Your task to perform on an android device: turn off javascript in the chrome app Image 0: 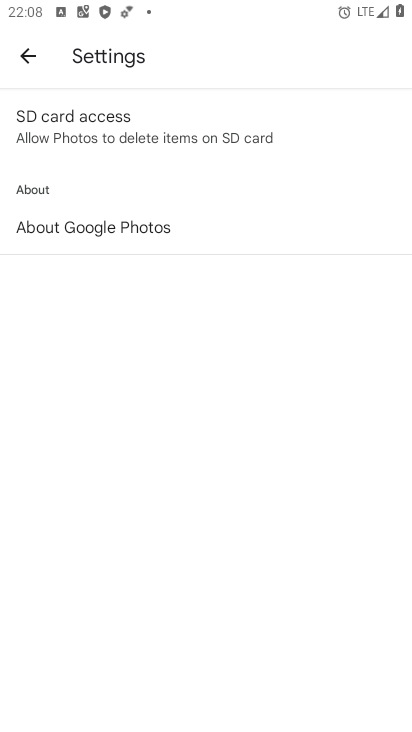
Step 0: press home button
Your task to perform on an android device: turn off javascript in the chrome app Image 1: 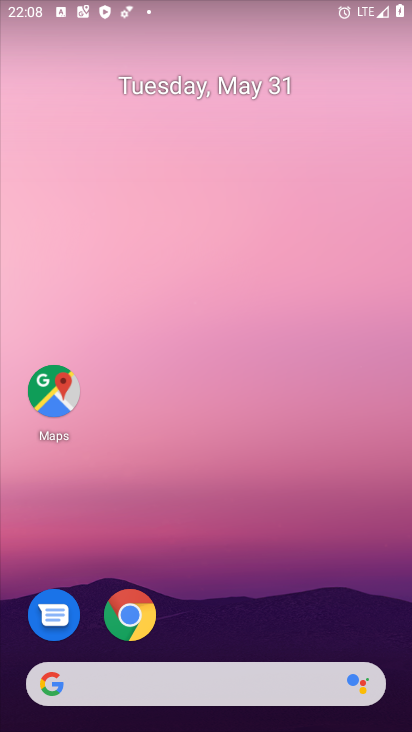
Step 1: click (132, 611)
Your task to perform on an android device: turn off javascript in the chrome app Image 2: 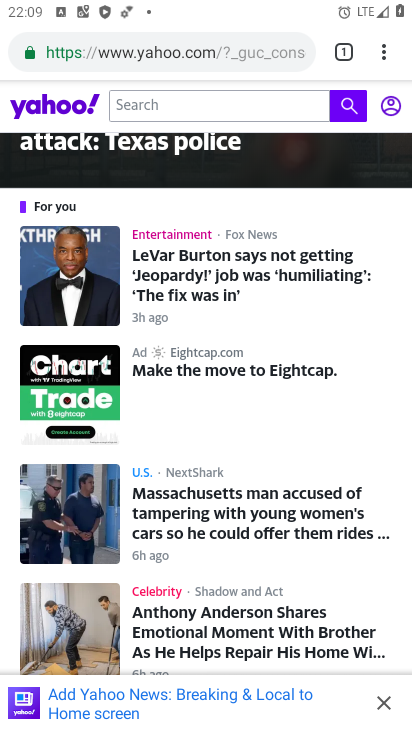
Step 2: click (383, 58)
Your task to perform on an android device: turn off javascript in the chrome app Image 3: 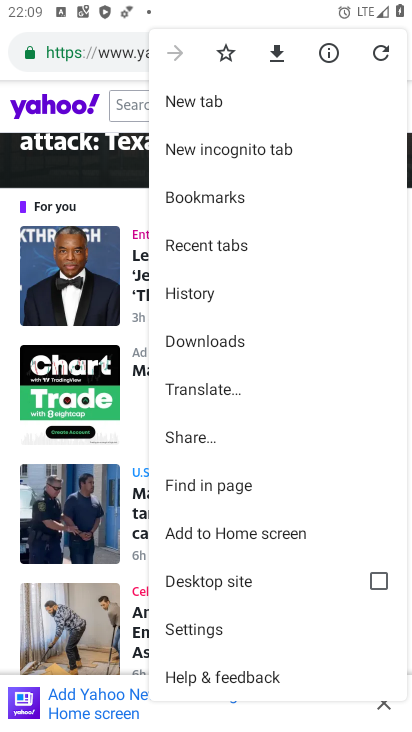
Step 3: click (196, 626)
Your task to perform on an android device: turn off javascript in the chrome app Image 4: 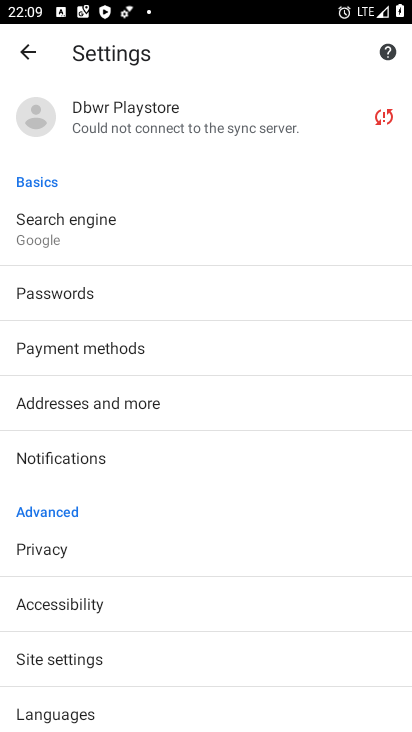
Step 4: drag from (197, 675) to (233, 364)
Your task to perform on an android device: turn off javascript in the chrome app Image 5: 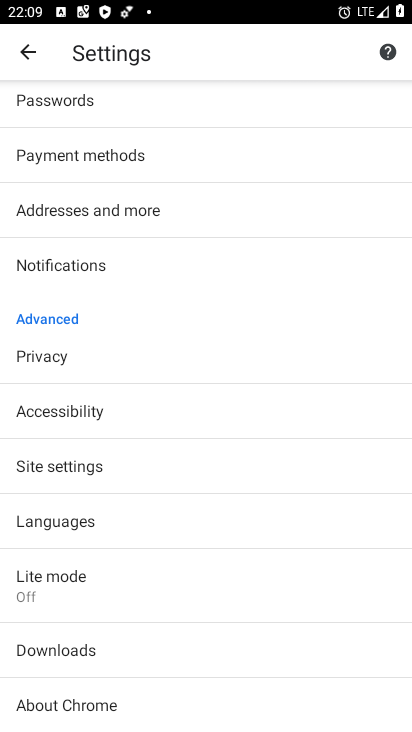
Step 5: click (64, 465)
Your task to perform on an android device: turn off javascript in the chrome app Image 6: 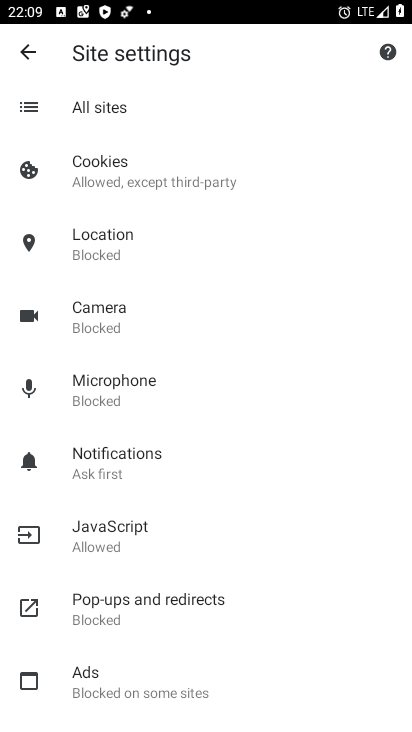
Step 6: click (98, 522)
Your task to perform on an android device: turn off javascript in the chrome app Image 7: 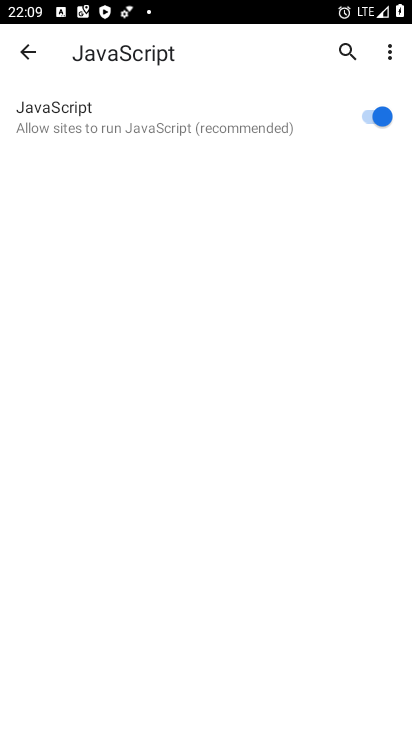
Step 7: click (365, 112)
Your task to perform on an android device: turn off javascript in the chrome app Image 8: 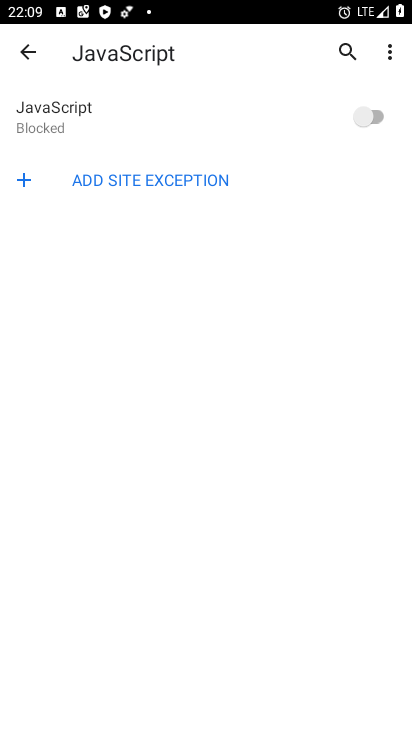
Step 8: task complete